Your task to perform on an android device: Go to Android settings Image 0: 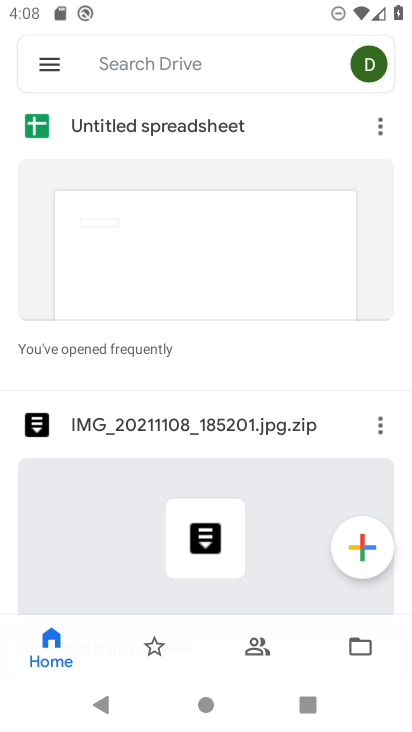
Step 0: press home button
Your task to perform on an android device: Go to Android settings Image 1: 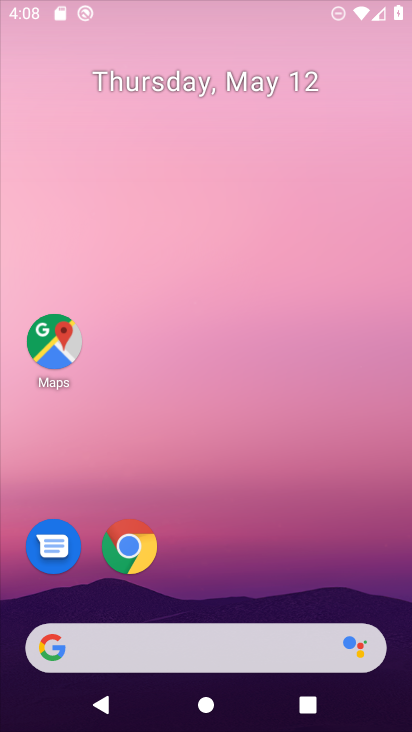
Step 1: drag from (189, 613) to (237, 306)
Your task to perform on an android device: Go to Android settings Image 2: 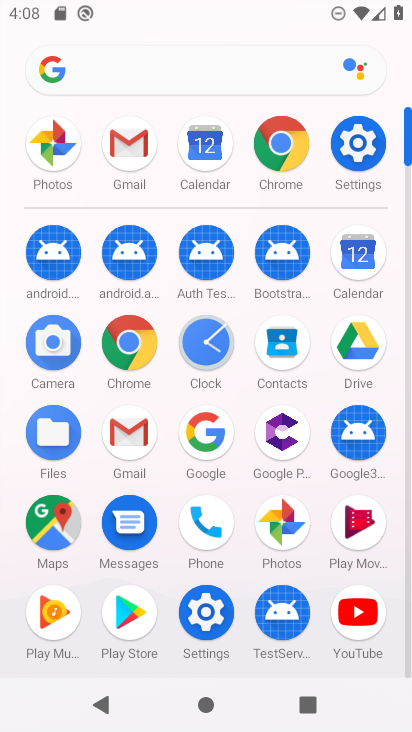
Step 2: click (364, 134)
Your task to perform on an android device: Go to Android settings Image 3: 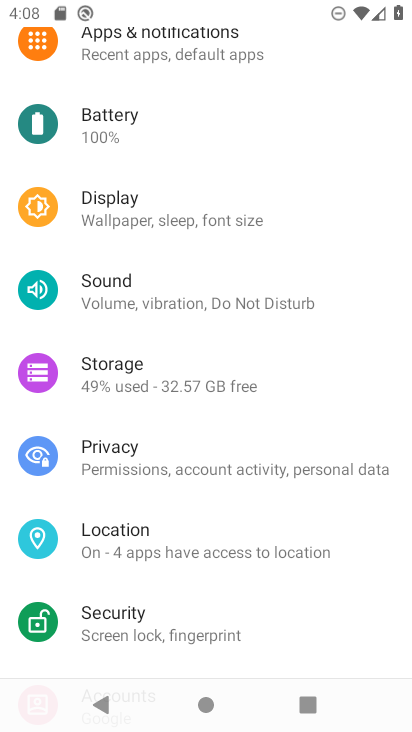
Step 3: task complete